Your task to perform on an android device: toggle sleep mode Image 0: 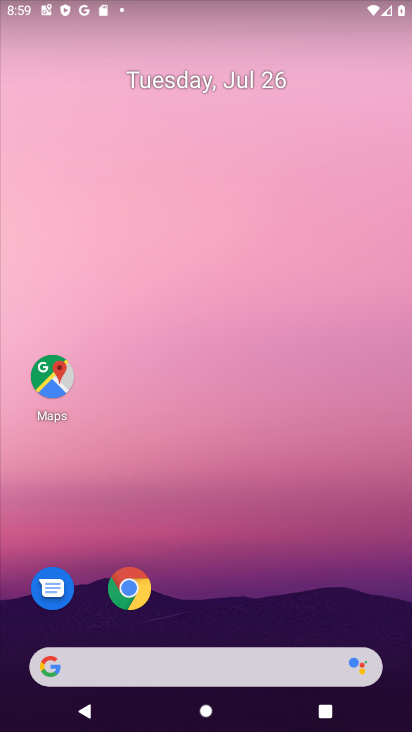
Step 0: press home button
Your task to perform on an android device: toggle sleep mode Image 1: 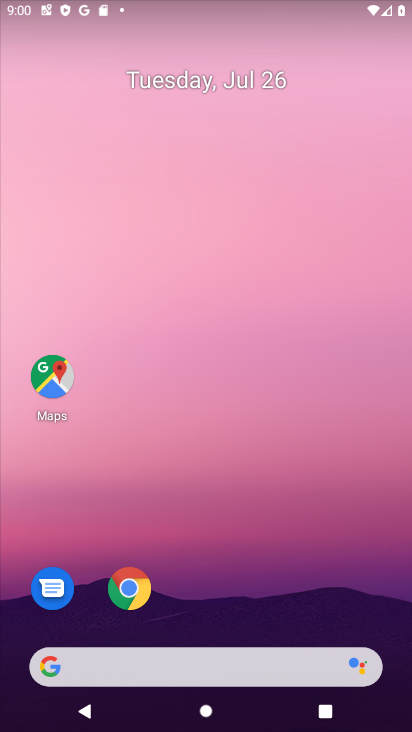
Step 1: drag from (225, 620) to (286, 24)
Your task to perform on an android device: toggle sleep mode Image 2: 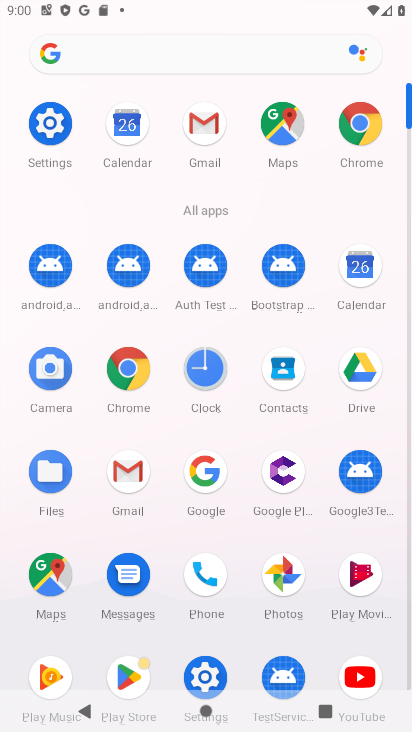
Step 2: click (46, 119)
Your task to perform on an android device: toggle sleep mode Image 3: 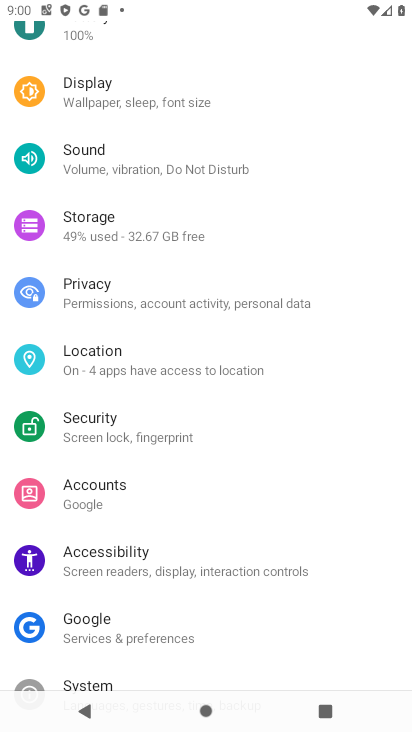
Step 3: click (132, 83)
Your task to perform on an android device: toggle sleep mode Image 4: 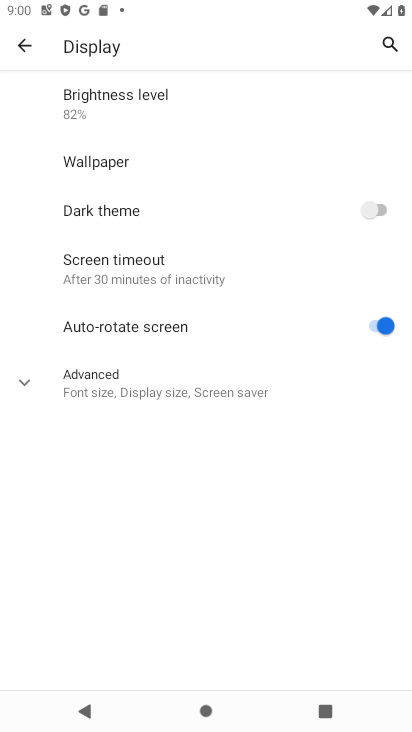
Step 4: click (25, 380)
Your task to perform on an android device: toggle sleep mode Image 5: 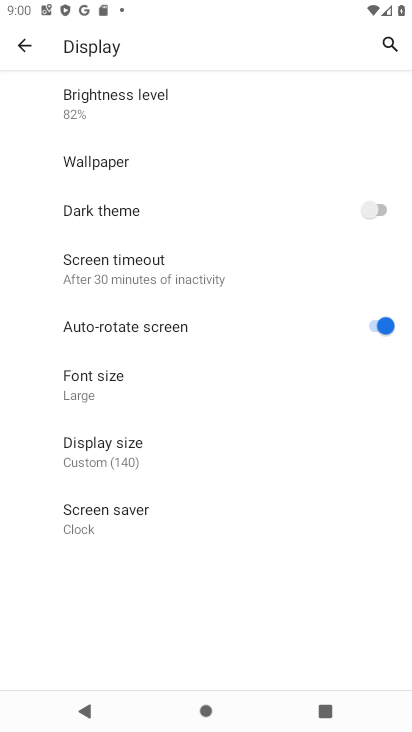
Step 5: task complete